Your task to perform on an android device: Go to Yahoo.com Image 0: 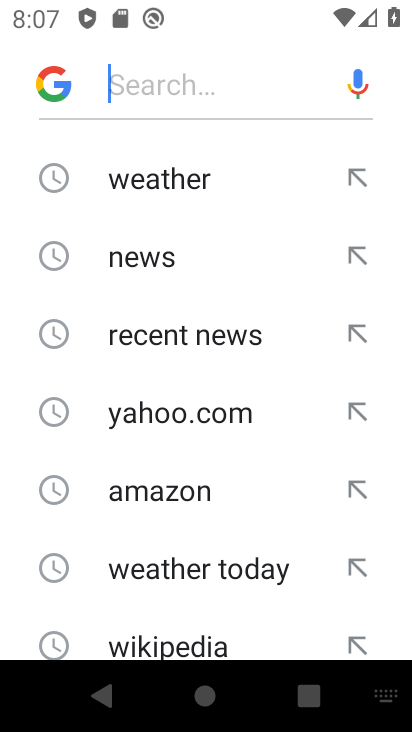
Step 0: press home button
Your task to perform on an android device: Go to Yahoo.com Image 1: 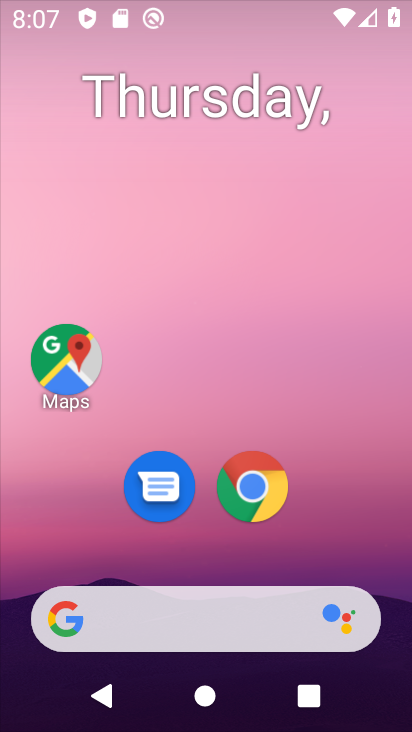
Step 1: drag from (200, 591) to (327, 155)
Your task to perform on an android device: Go to Yahoo.com Image 2: 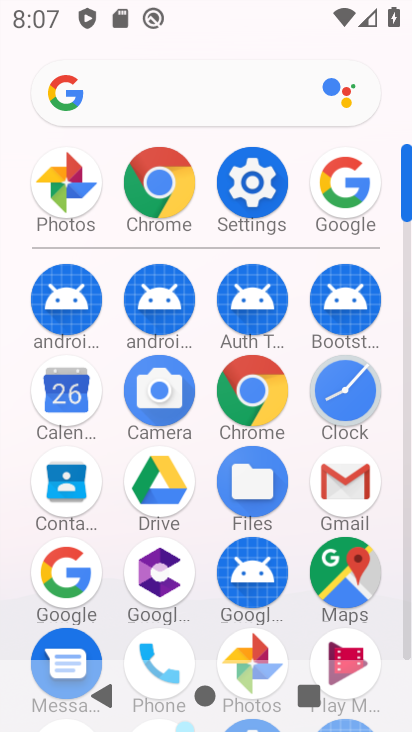
Step 2: click (168, 182)
Your task to perform on an android device: Go to Yahoo.com Image 3: 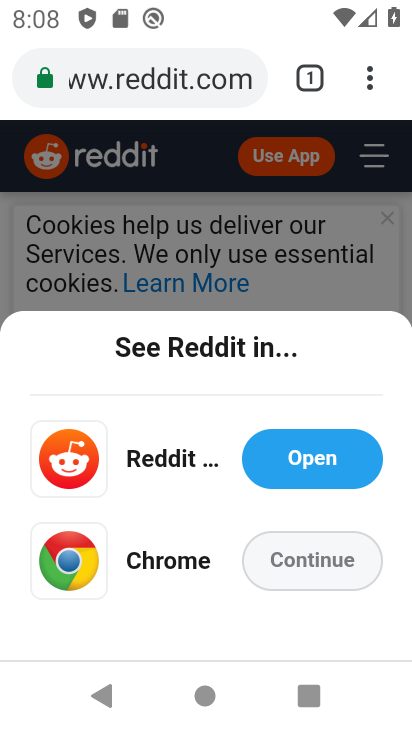
Step 3: click (214, 80)
Your task to perform on an android device: Go to Yahoo.com Image 4: 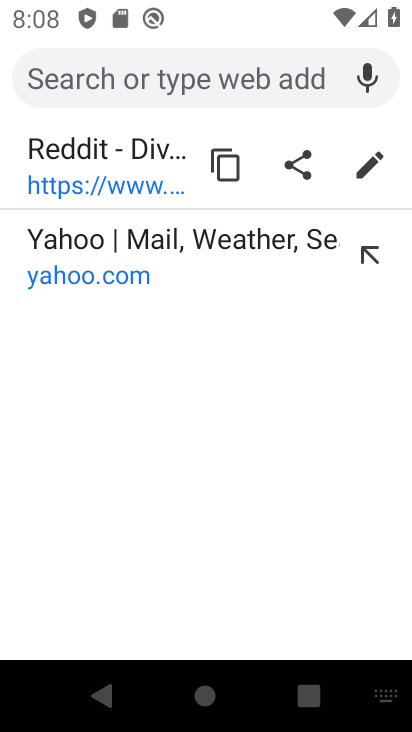
Step 4: click (263, 110)
Your task to perform on an android device: Go to Yahoo.com Image 5: 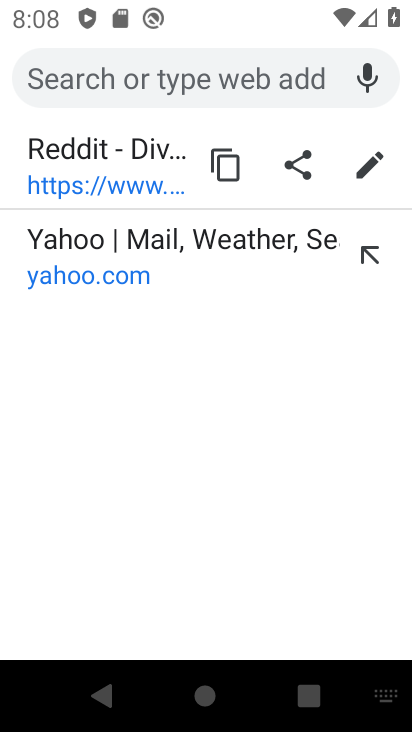
Step 5: click (149, 272)
Your task to perform on an android device: Go to Yahoo.com Image 6: 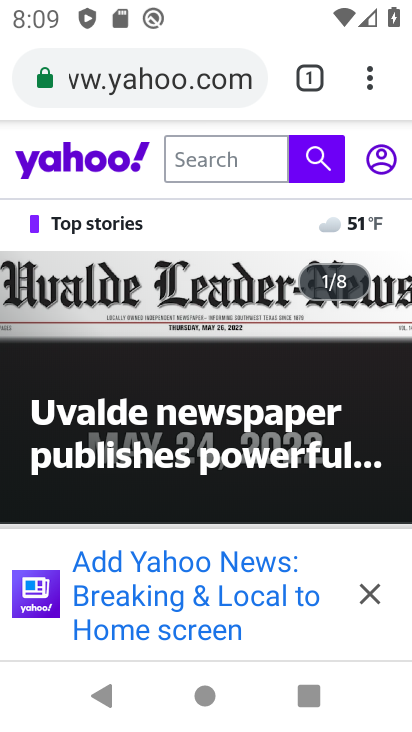
Step 6: task complete